Your task to perform on an android device: open a bookmark in the chrome app Image 0: 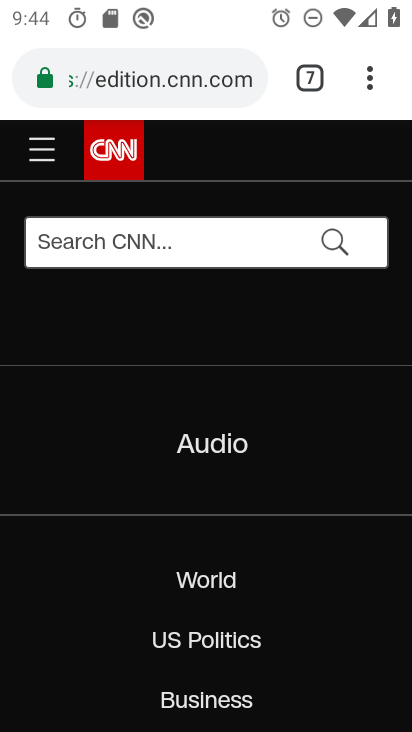
Step 0: press home button
Your task to perform on an android device: open a bookmark in the chrome app Image 1: 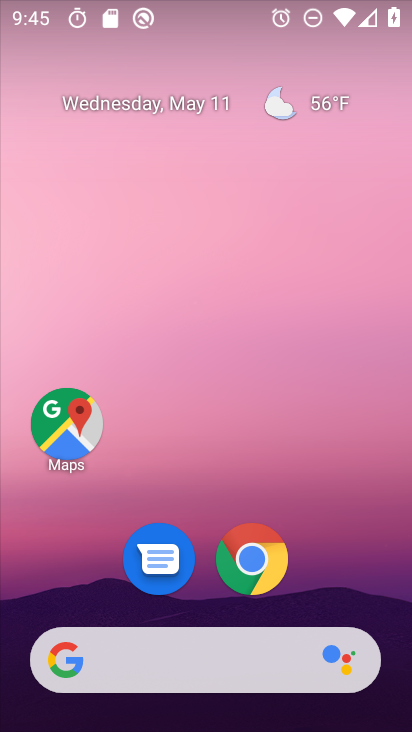
Step 1: click (231, 582)
Your task to perform on an android device: open a bookmark in the chrome app Image 2: 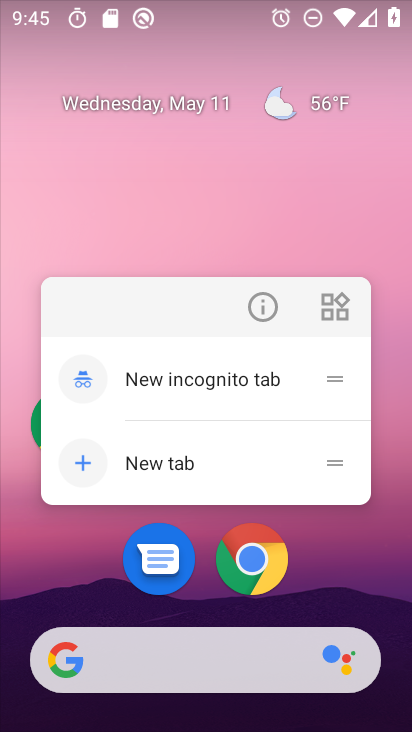
Step 2: click (241, 592)
Your task to perform on an android device: open a bookmark in the chrome app Image 3: 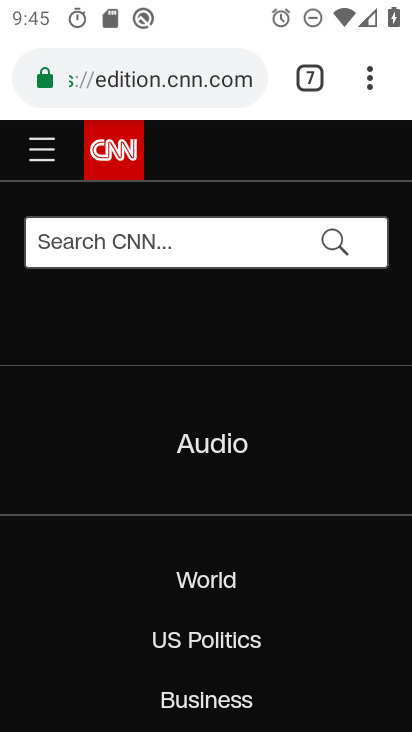
Step 3: click (371, 82)
Your task to perform on an android device: open a bookmark in the chrome app Image 4: 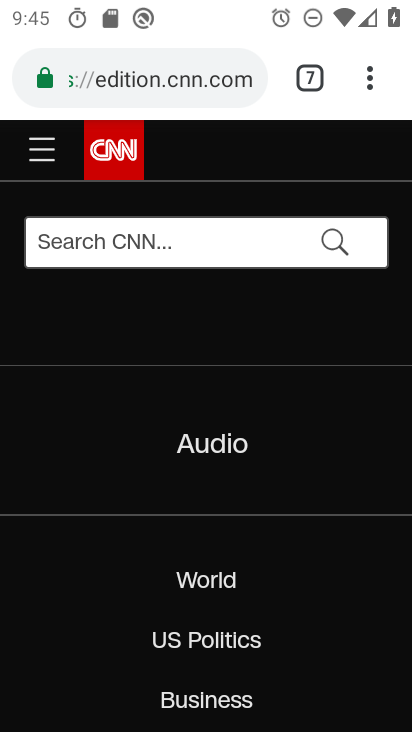
Step 4: click (366, 66)
Your task to perform on an android device: open a bookmark in the chrome app Image 5: 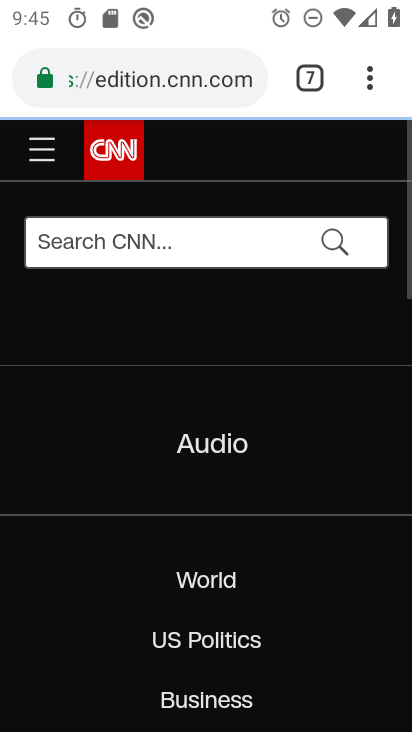
Step 5: click (367, 66)
Your task to perform on an android device: open a bookmark in the chrome app Image 6: 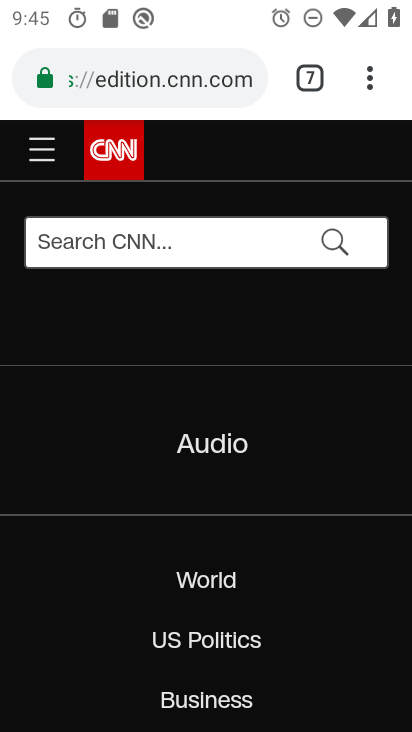
Step 6: click (371, 78)
Your task to perform on an android device: open a bookmark in the chrome app Image 7: 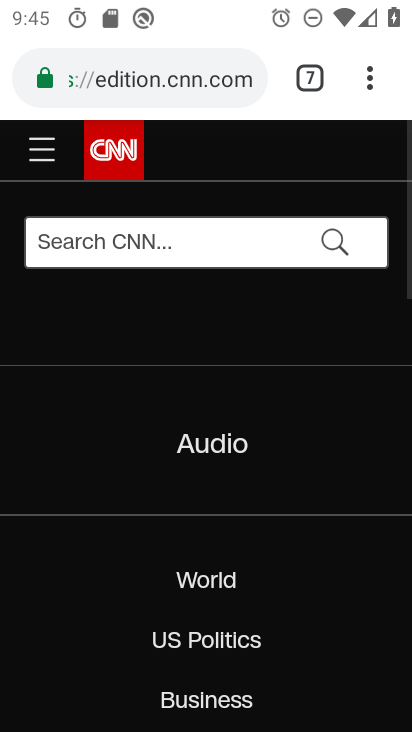
Step 7: click (373, 79)
Your task to perform on an android device: open a bookmark in the chrome app Image 8: 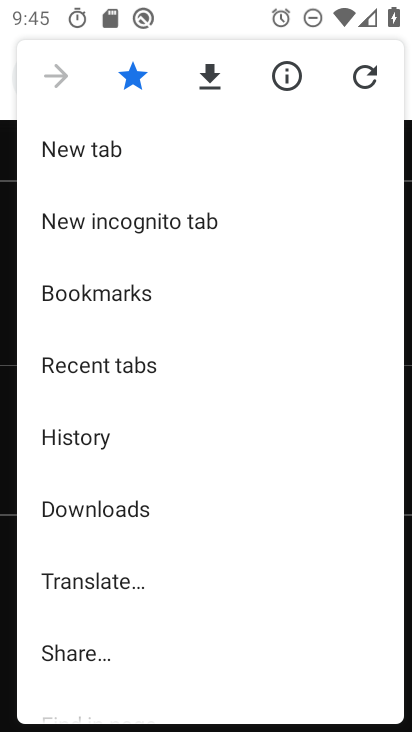
Step 8: click (168, 298)
Your task to perform on an android device: open a bookmark in the chrome app Image 9: 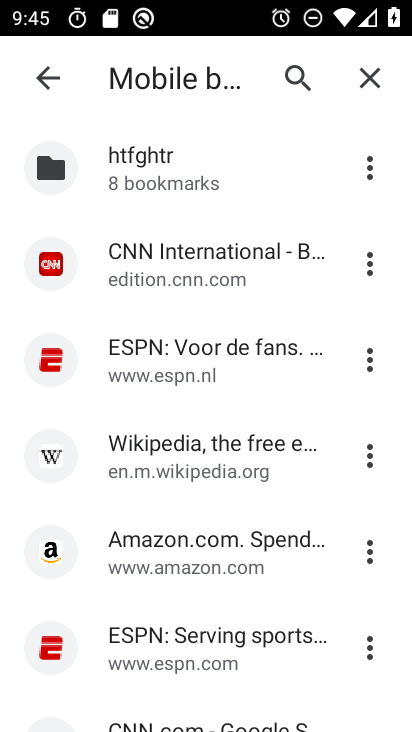
Step 9: task complete